Your task to perform on an android device: Go to ESPN.com Image 0: 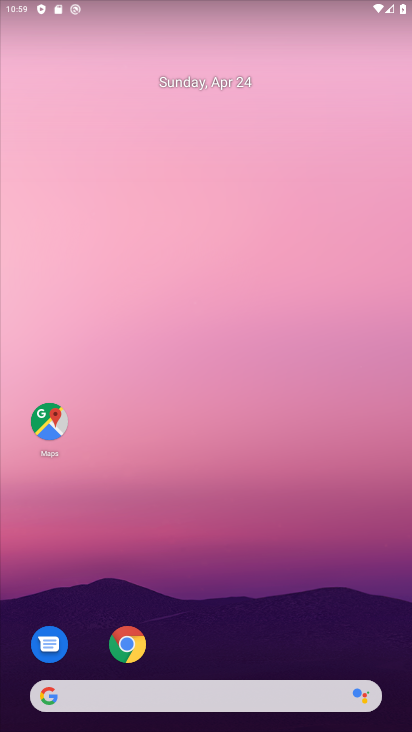
Step 0: click (126, 649)
Your task to perform on an android device: Go to ESPN.com Image 1: 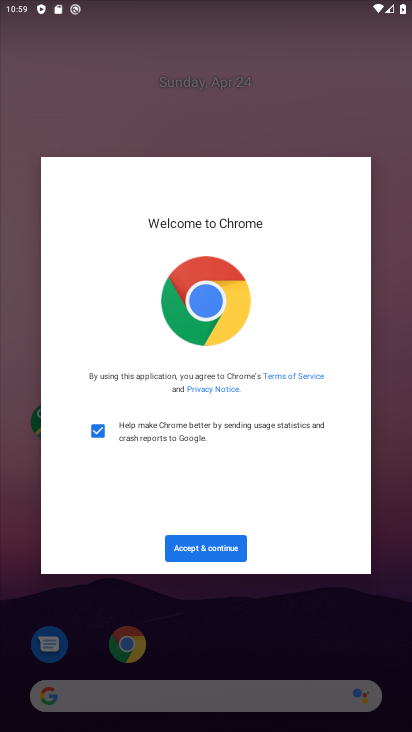
Step 1: click (171, 547)
Your task to perform on an android device: Go to ESPN.com Image 2: 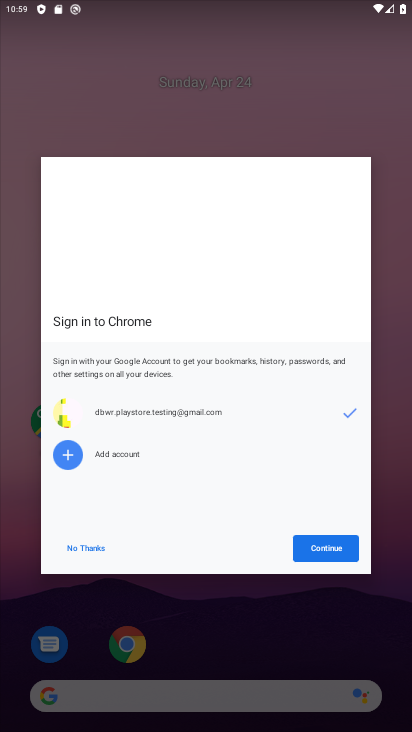
Step 2: click (85, 551)
Your task to perform on an android device: Go to ESPN.com Image 3: 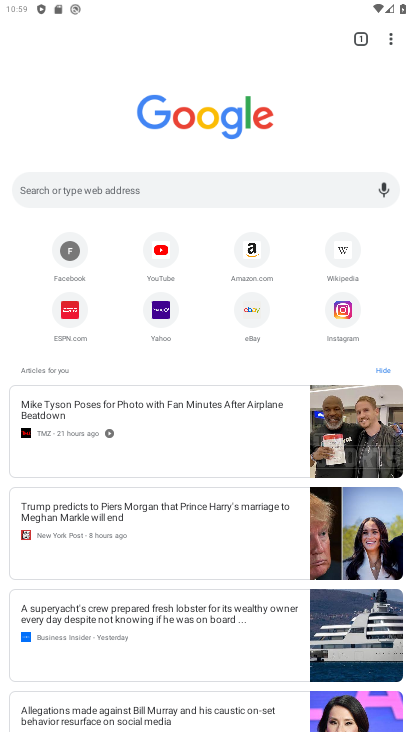
Step 3: click (59, 314)
Your task to perform on an android device: Go to ESPN.com Image 4: 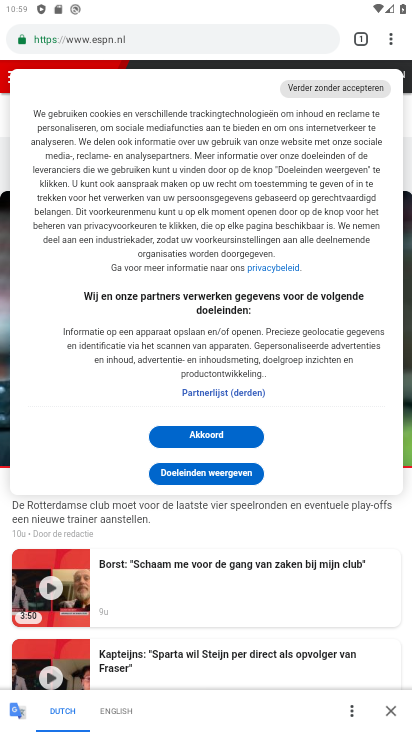
Step 4: task complete